Your task to perform on an android device: When is my next meeting? Image 0: 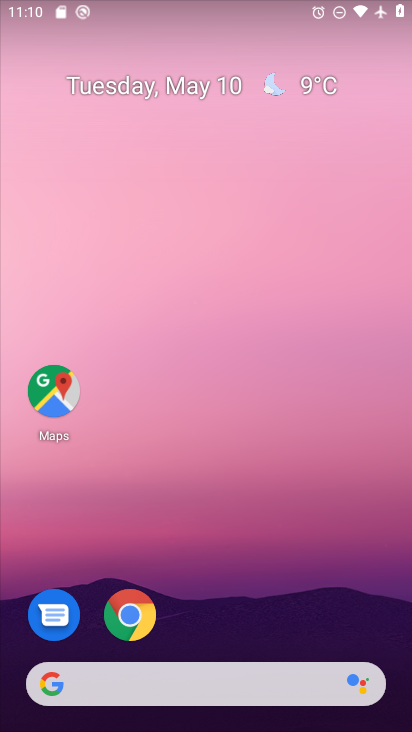
Step 0: drag from (390, 655) to (291, 158)
Your task to perform on an android device: When is my next meeting? Image 1: 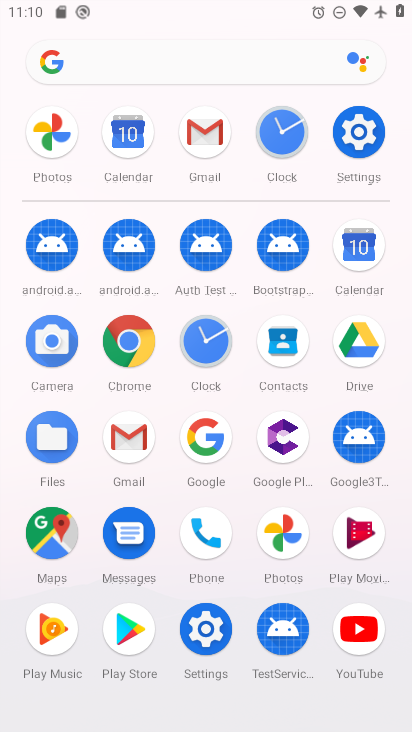
Step 1: click (360, 246)
Your task to perform on an android device: When is my next meeting? Image 2: 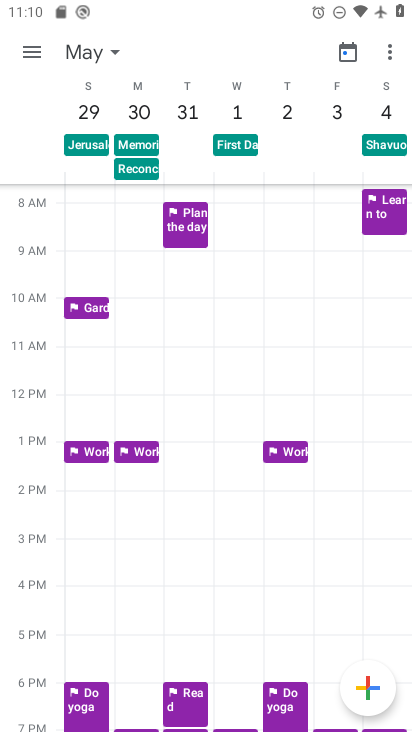
Step 2: click (27, 46)
Your task to perform on an android device: When is my next meeting? Image 3: 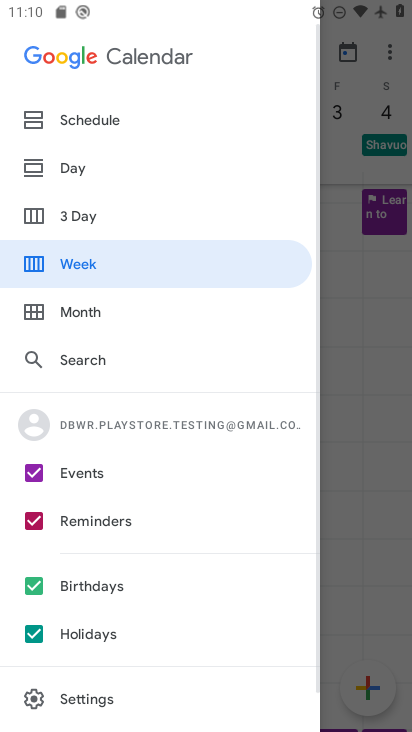
Step 3: click (89, 120)
Your task to perform on an android device: When is my next meeting? Image 4: 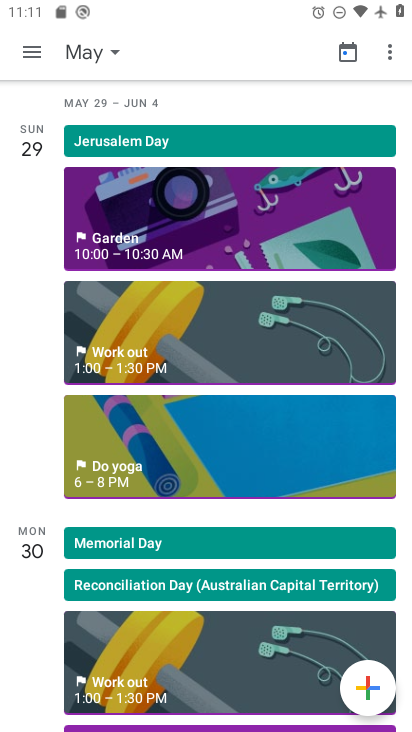
Step 4: task complete